Your task to perform on an android device: empty trash in google photos Image 0: 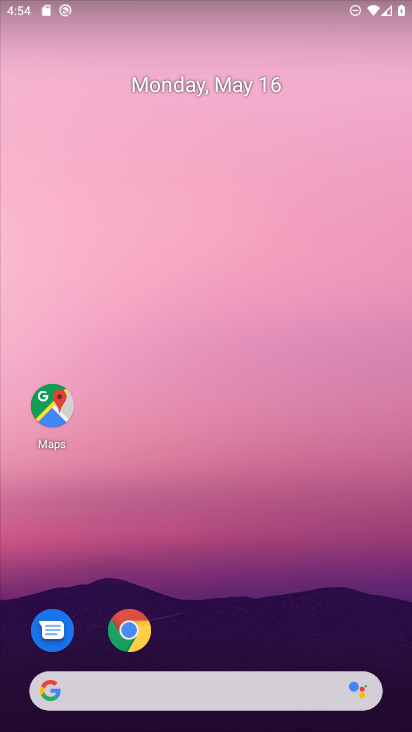
Step 0: drag from (306, 635) to (318, 74)
Your task to perform on an android device: empty trash in google photos Image 1: 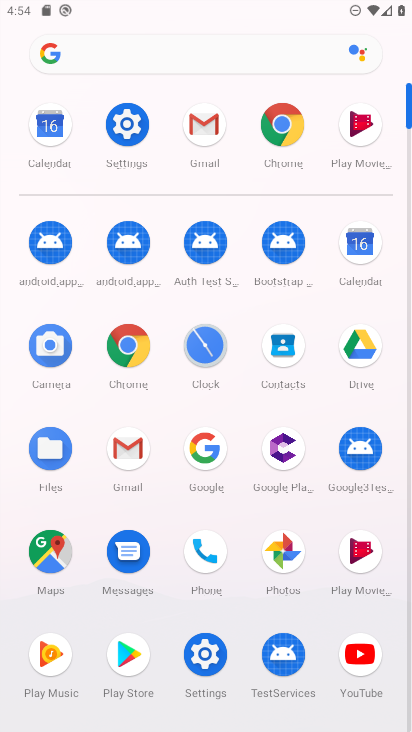
Step 1: drag from (245, 581) to (287, 128)
Your task to perform on an android device: empty trash in google photos Image 2: 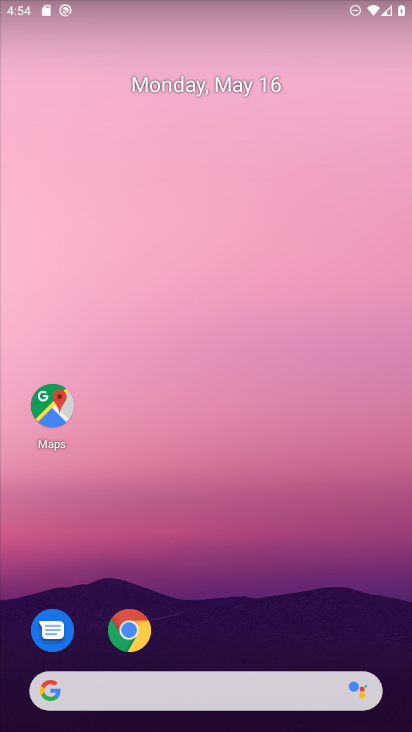
Step 2: click (293, 620)
Your task to perform on an android device: empty trash in google photos Image 3: 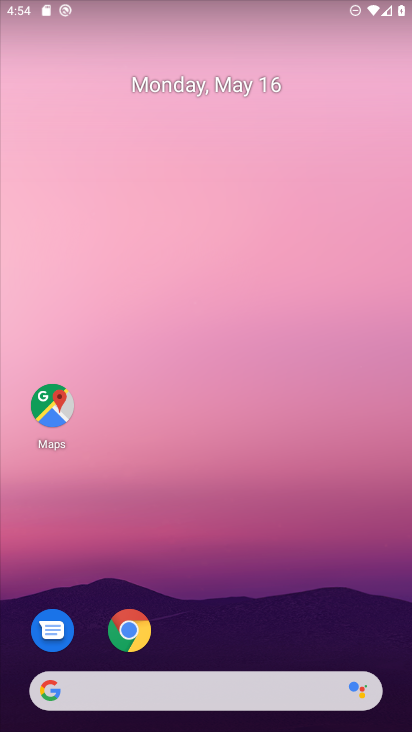
Step 3: drag from (307, 549) to (261, 18)
Your task to perform on an android device: empty trash in google photos Image 4: 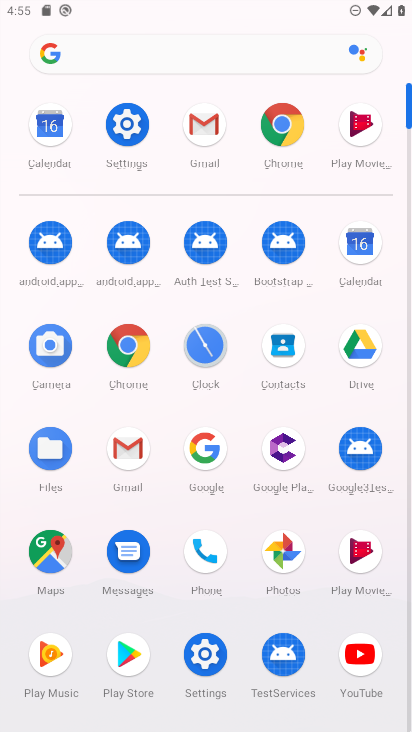
Step 4: click (276, 578)
Your task to perform on an android device: empty trash in google photos Image 5: 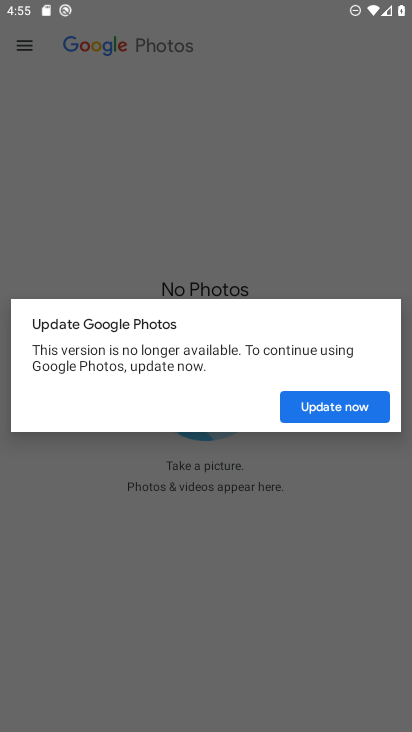
Step 5: click (326, 411)
Your task to perform on an android device: empty trash in google photos Image 6: 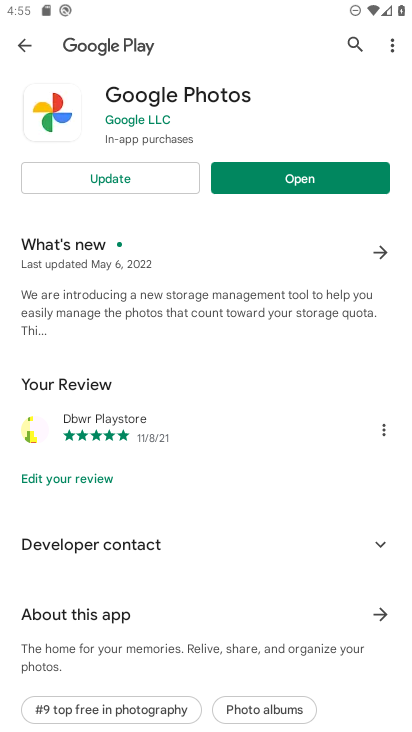
Step 6: click (304, 172)
Your task to perform on an android device: empty trash in google photos Image 7: 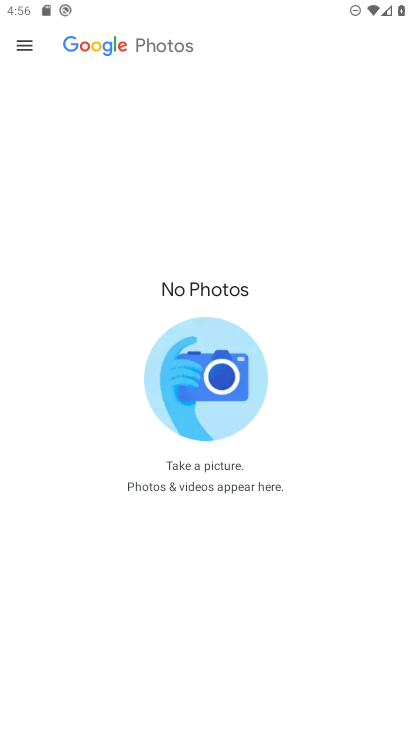
Step 7: click (23, 40)
Your task to perform on an android device: empty trash in google photos Image 8: 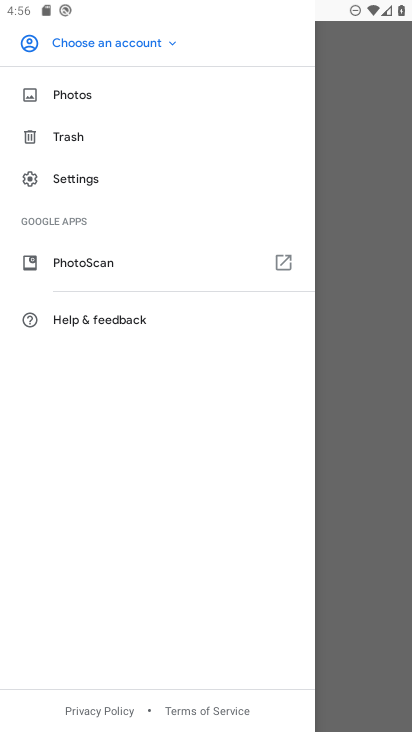
Step 8: click (75, 142)
Your task to perform on an android device: empty trash in google photos Image 9: 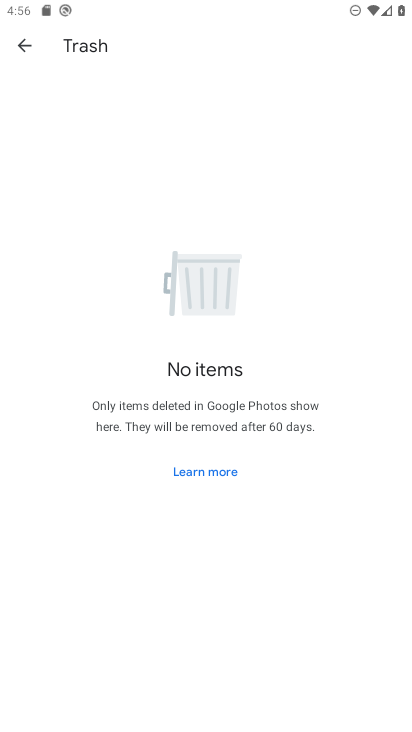
Step 9: task complete